Your task to perform on an android device: turn on bluetooth scan Image 0: 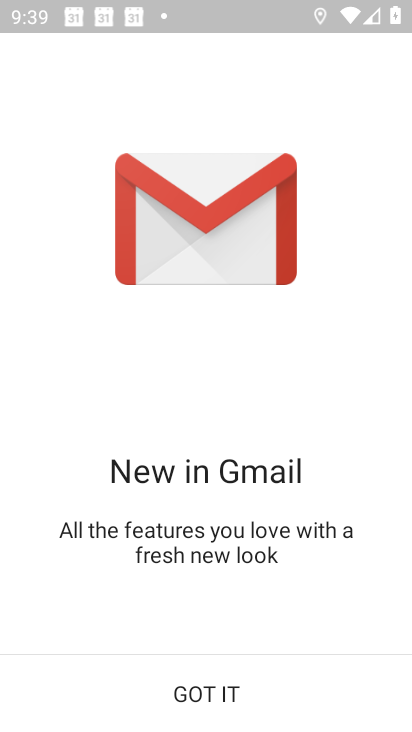
Step 0: click (224, 703)
Your task to perform on an android device: turn on bluetooth scan Image 1: 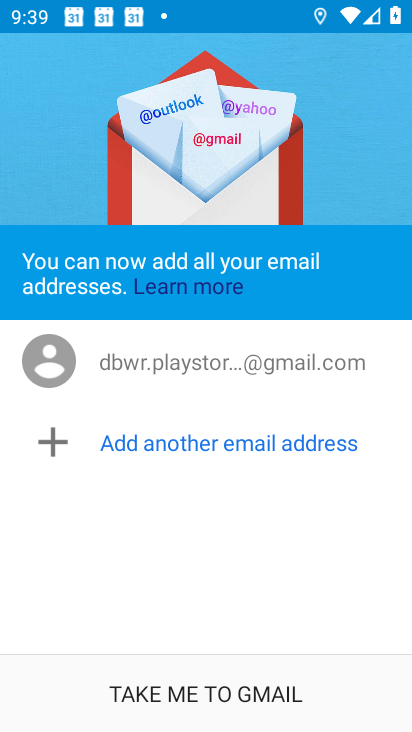
Step 1: click (284, 689)
Your task to perform on an android device: turn on bluetooth scan Image 2: 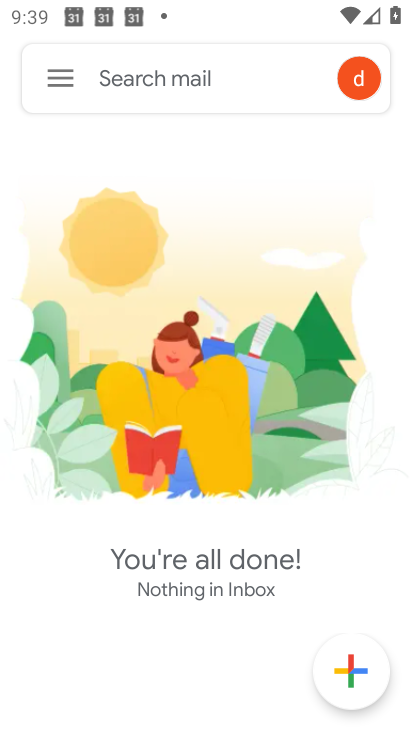
Step 2: press home button
Your task to perform on an android device: turn on bluetooth scan Image 3: 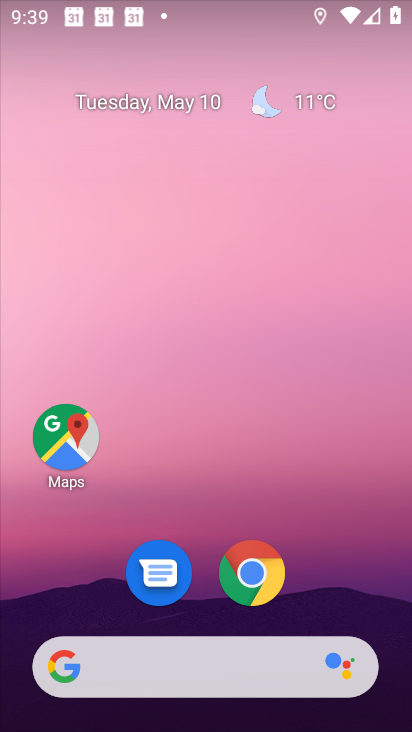
Step 3: drag from (317, 568) to (321, 195)
Your task to perform on an android device: turn on bluetooth scan Image 4: 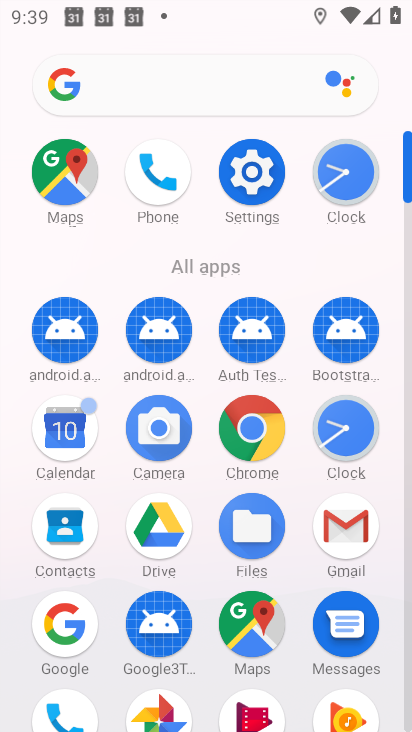
Step 4: click (261, 186)
Your task to perform on an android device: turn on bluetooth scan Image 5: 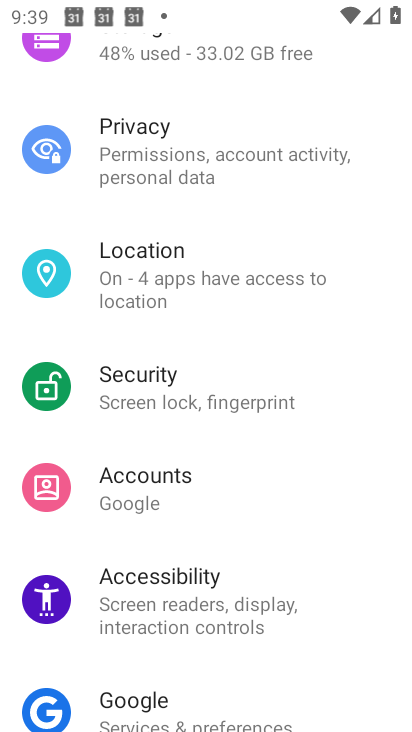
Step 5: drag from (267, 238) to (259, 629)
Your task to perform on an android device: turn on bluetooth scan Image 6: 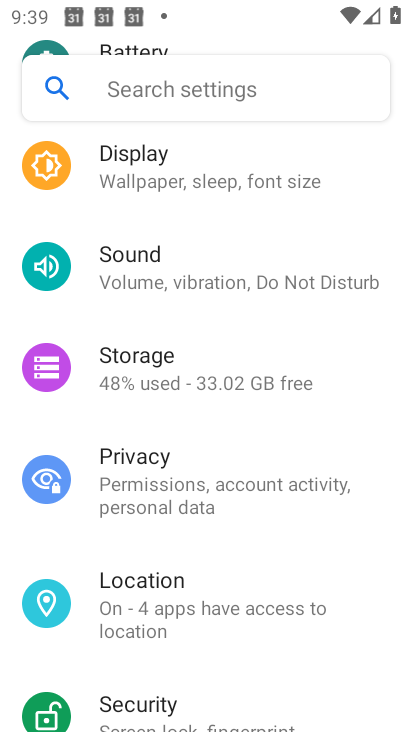
Step 6: drag from (251, 345) to (251, 660)
Your task to perform on an android device: turn on bluetooth scan Image 7: 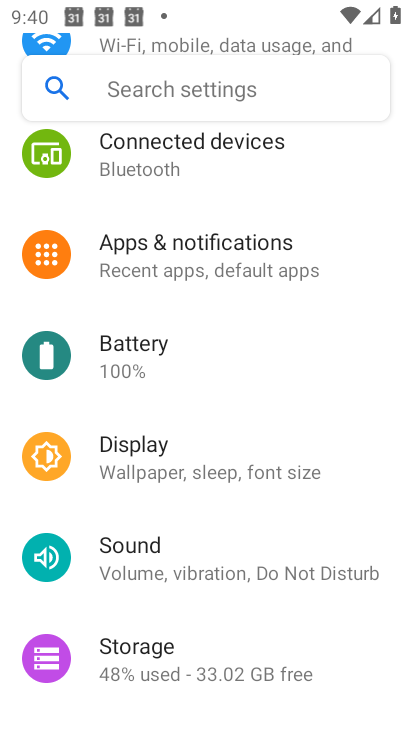
Step 7: drag from (228, 315) to (225, 589)
Your task to perform on an android device: turn on bluetooth scan Image 8: 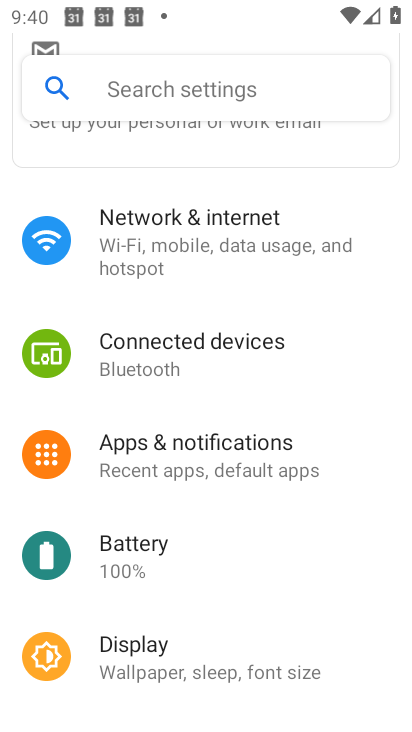
Step 8: drag from (207, 589) to (219, 250)
Your task to perform on an android device: turn on bluetooth scan Image 9: 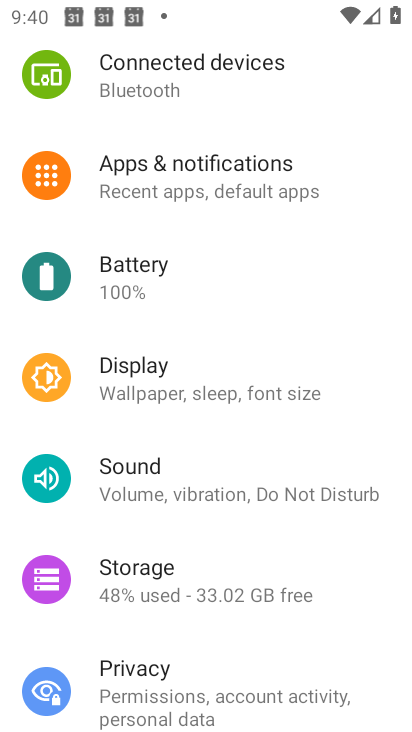
Step 9: drag from (210, 646) to (226, 329)
Your task to perform on an android device: turn on bluetooth scan Image 10: 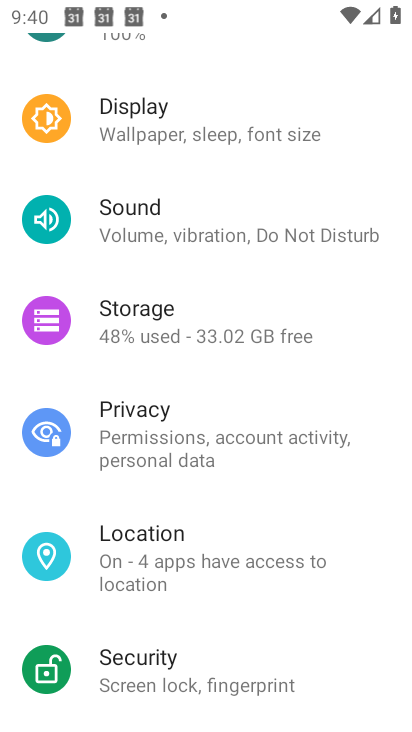
Step 10: click (228, 566)
Your task to perform on an android device: turn on bluetooth scan Image 11: 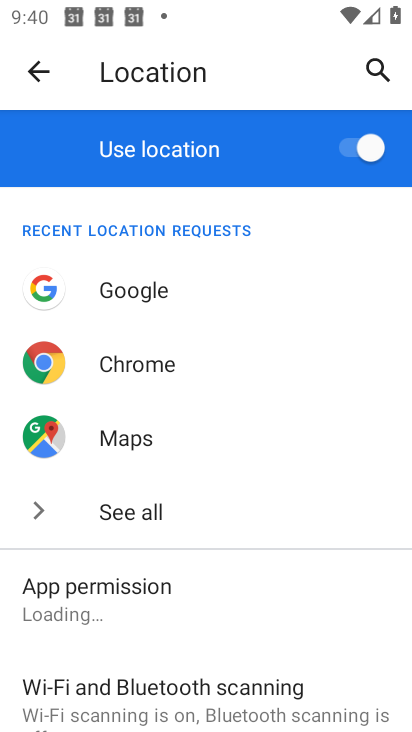
Step 11: click (185, 701)
Your task to perform on an android device: turn on bluetooth scan Image 12: 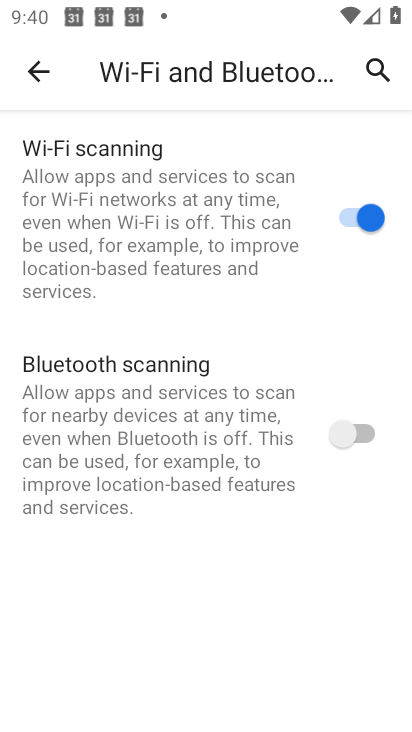
Step 12: click (365, 439)
Your task to perform on an android device: turn on bluetooth scan Image 13: 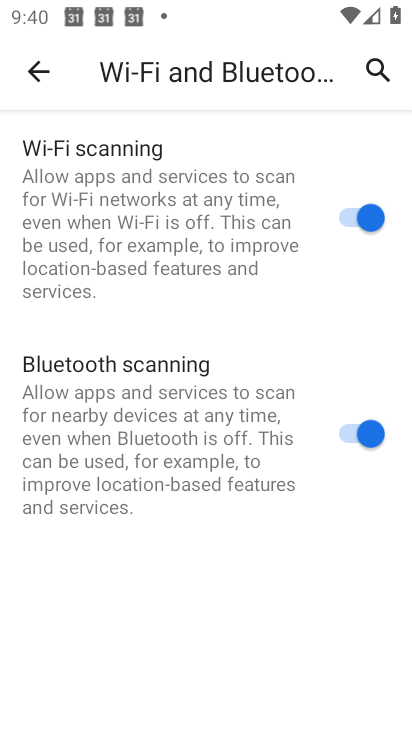
Step 13: task complete